Your task to perform on an android device: turn off priority inbox in the gmail app Image 0: 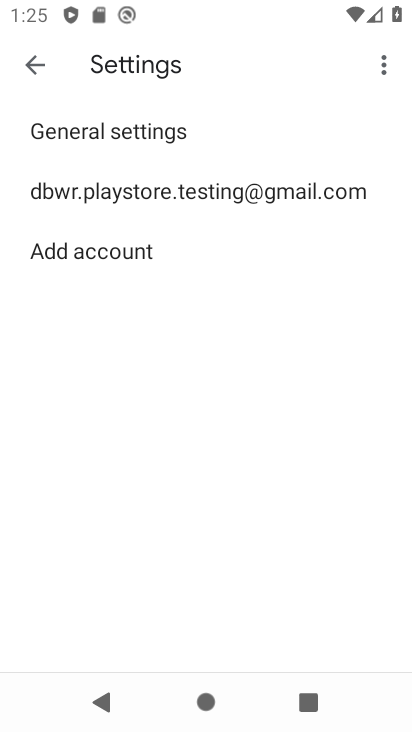
Step 0: press home button
Your task to perform on an android device: turn off priority inbox in the gmail app Image 1: 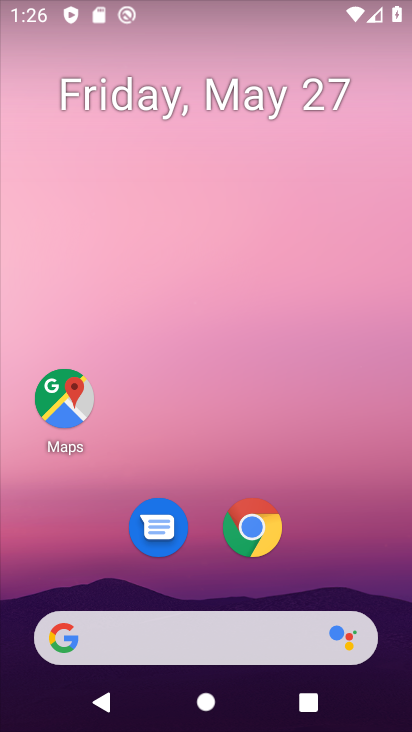
Step 1: drag from (208, 476) to (279, 280)
Your task to perform on an android device: turn off priority inbox in the gmail app Image 2: 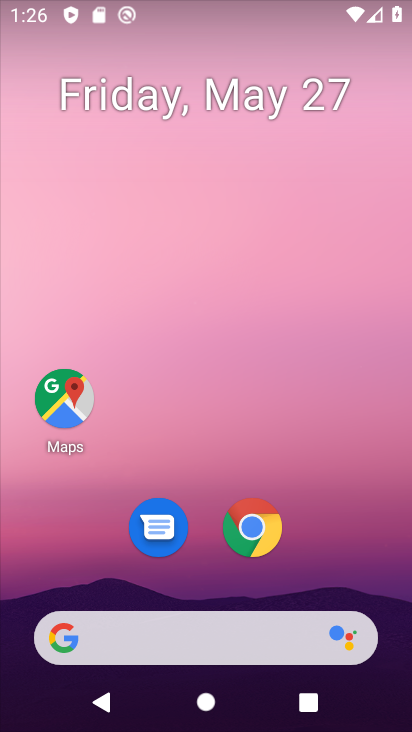
Step 2: drag from (202, 583) to (268, 197)
Your task to perform on an android device: turn off priority inbox in the gmail app Image 3: 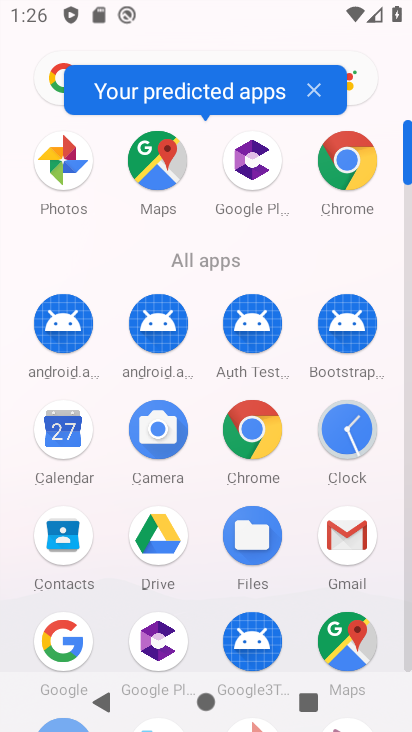
Step 3: click (341, 534)
Your task to perform on an android device: turn off priority inbox in the gmail app Image 4: 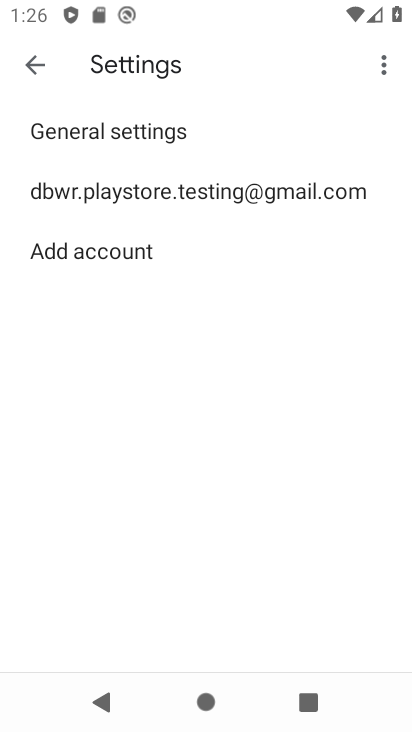
Step 4: click (288, 200)
Your task to perform on an android device: turn off priority inbox in the gmail app Image 5: 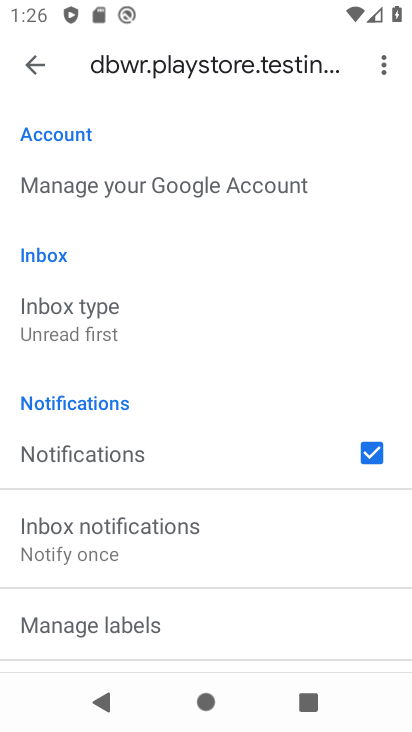
Step 5: click (42, 329)
Your task to perform on an android device: turn off priority inbox in the gmail app Image 6: 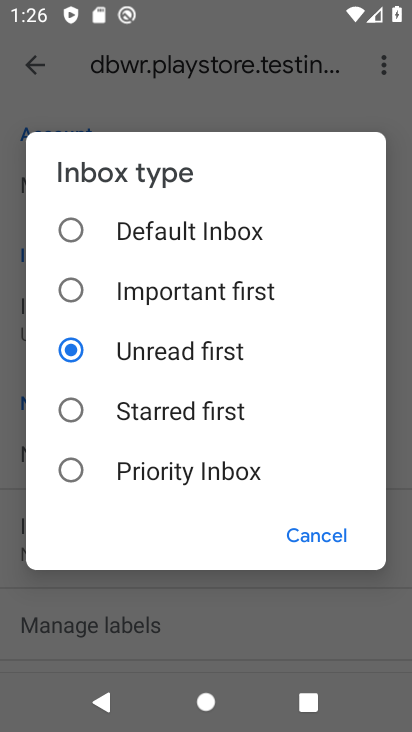
Step 6: click (134, 466)
Your task to perform on an android device: turn off priority inbox in the gmail app Image 7: 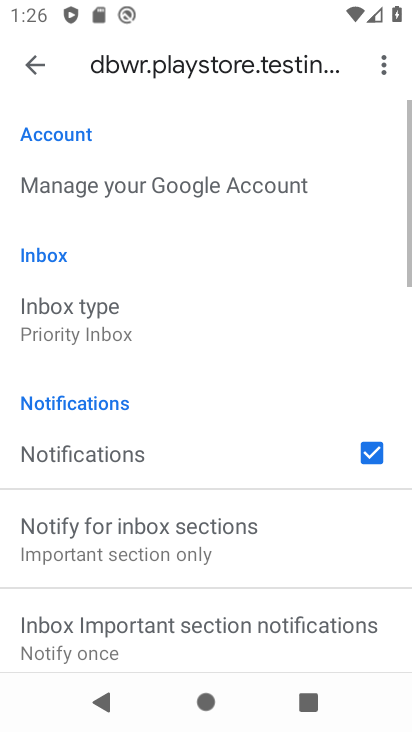
Step 7: click (119, 344)
Your task to perform on an android device: turn off priority inbox in the gmail app Image 8: 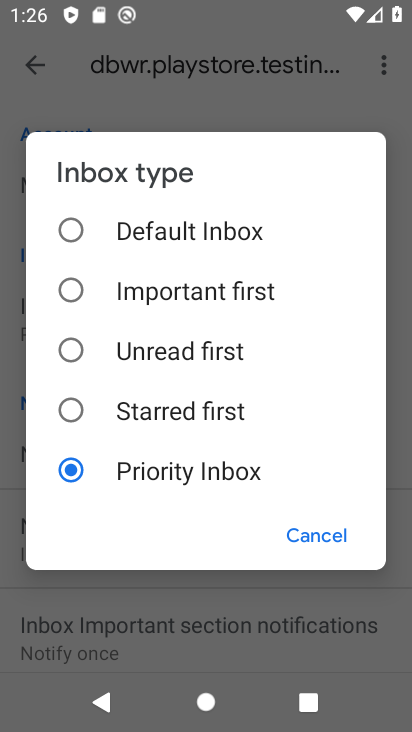
Step 8: click (113, 239)
Your task to perform on an android device: turn off priority inbox in the gmail app Image 9: 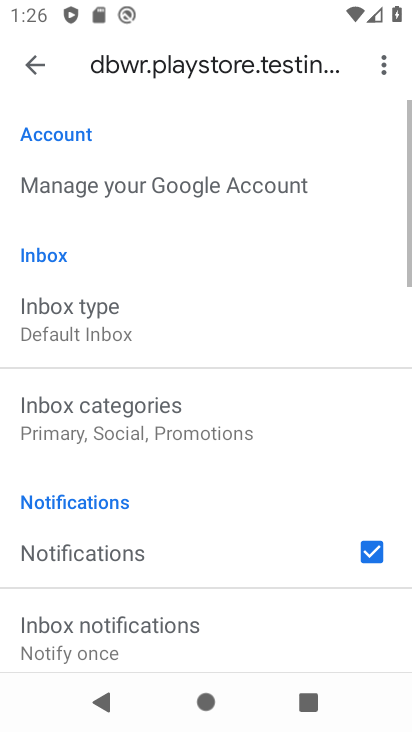
Step 9: task complete